Your task to perform on an android device: change notification settings in the gmail app Image 0: 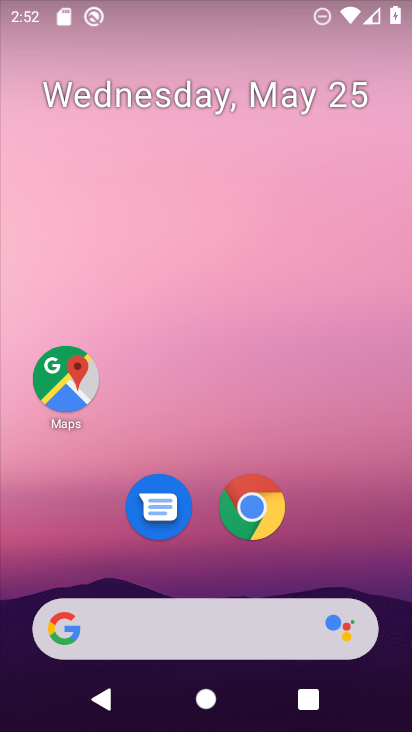
Step 0: drag from (218, 675) to (295, 149)
Your task to perform on an android device: change notification settings in the gmail app Image 1: 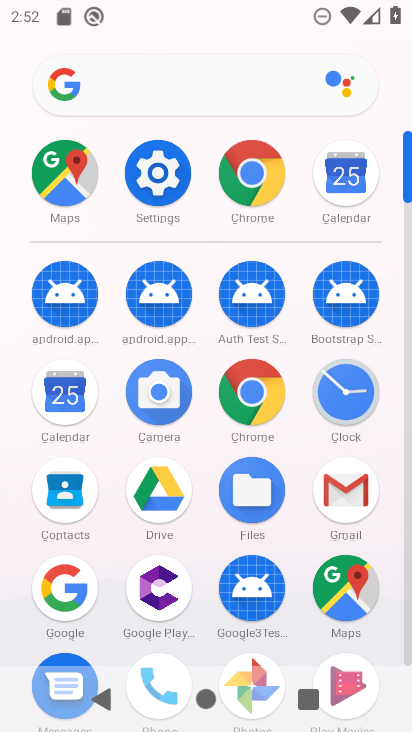
Step 1: click (331, 501)
Your task to perform on an android device: change notification settings in the gmail app Image 2: 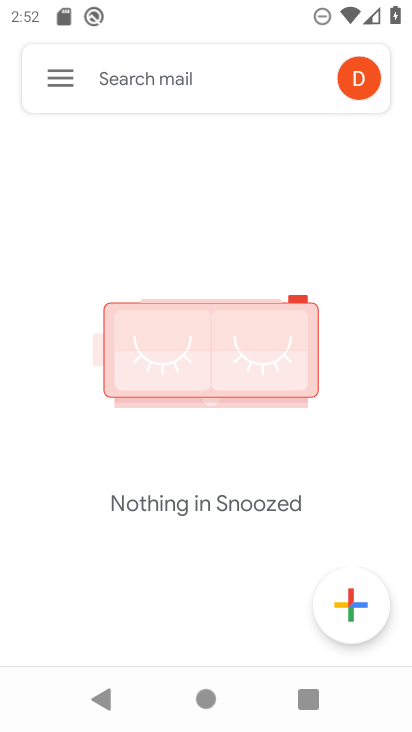
Step 2: click (65, 84)
Your task to perform on an android device: change notification settings in the gmail app Image 3: 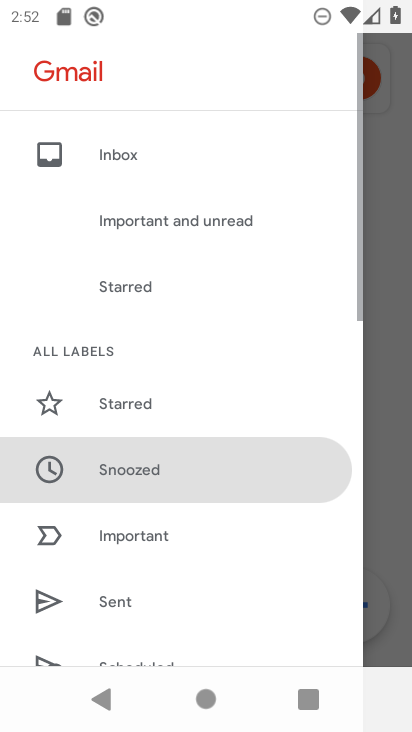
Step 3: drag from (131, 601) to (203, 309)
Your task to perform on an android device: change notification settings in the gmail app Image 4: 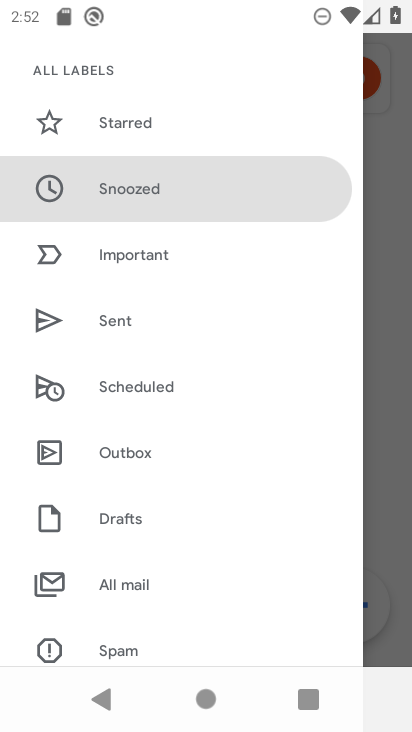
Step 4: drag from (184, 558) to (298, 4)
Your task to perform on an android device: change notification settings in the gmail app Image 5: 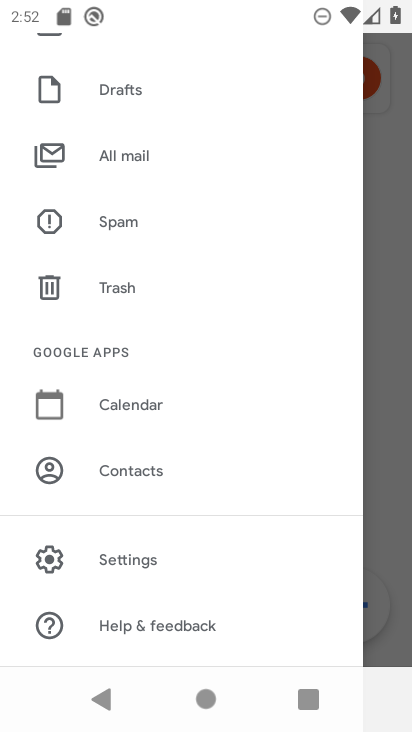
Step 5: click (124, 563)
Your task to perform on an android device: change notification settings in the gmail app Image 6: 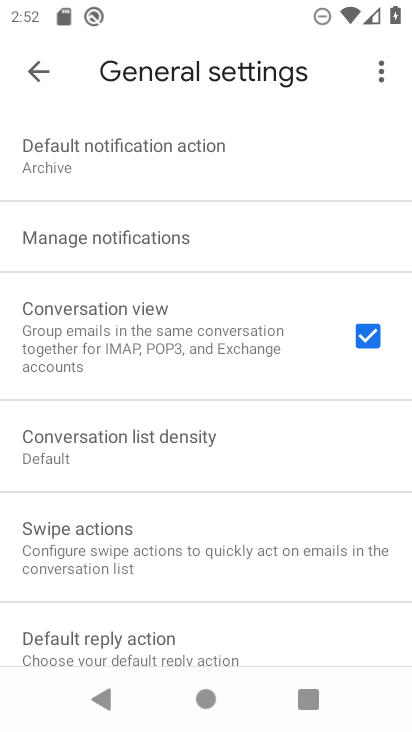
Step 6: click (143, 243)
Your task to perform on an android device: change notification settings in the gmail app Image 7: 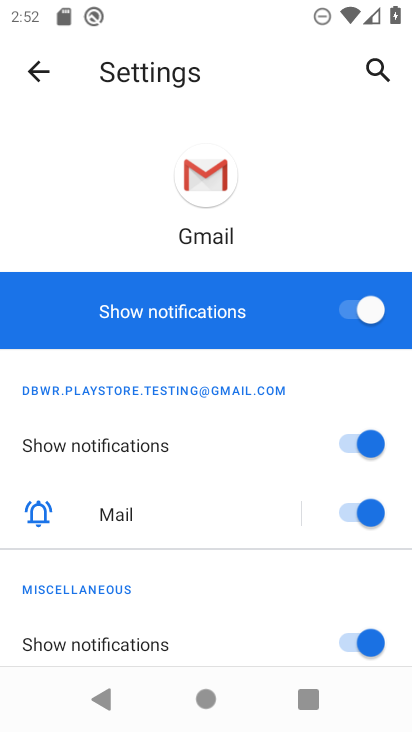
Step 7: click (343, 309)
Your task to perform on an android device: change notification settings in the gmail app Image 8: 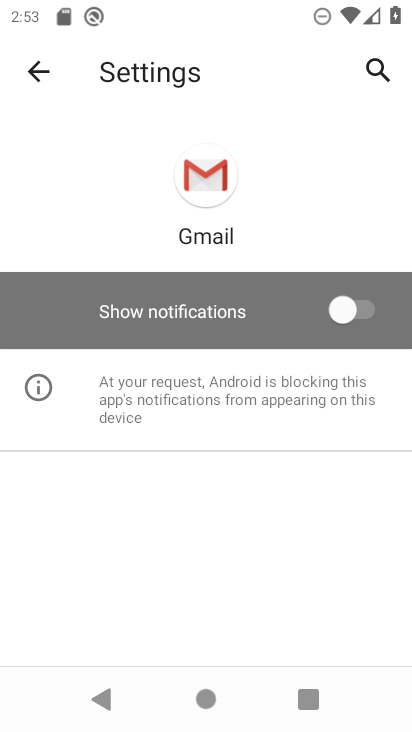
Step 8: task complete